Your task to perform on an android device: Show me the alarms in the clock app Image 0: 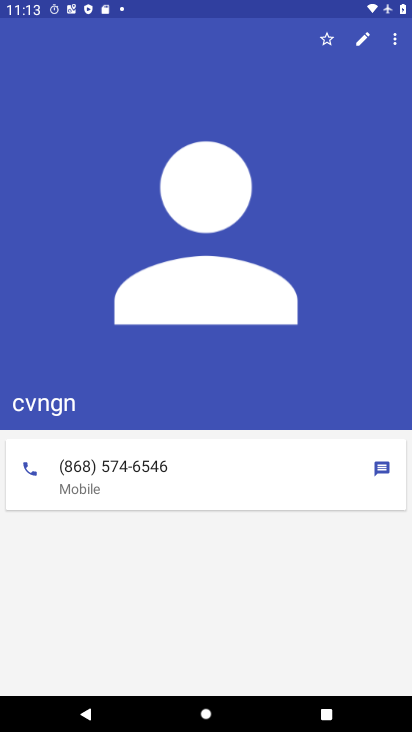
Step 0: press home button
Your task to perform on an android device: Show me the alarms in the clock app Image 1: 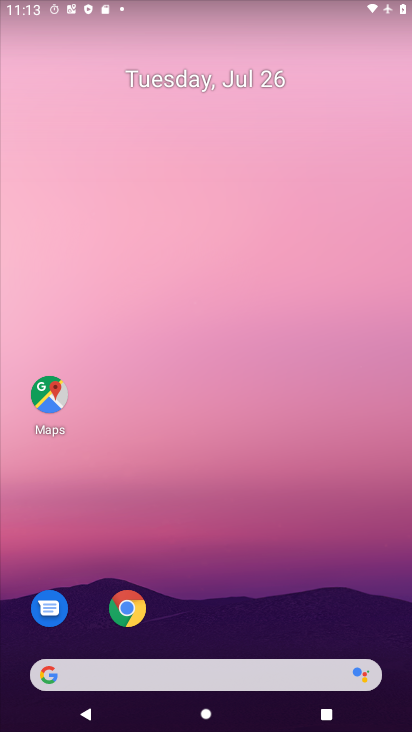
Step 1: drag from (207, 609) to (203, 197)
Your task to perform on an android device: Show me the alarms in the clock app Image 2: 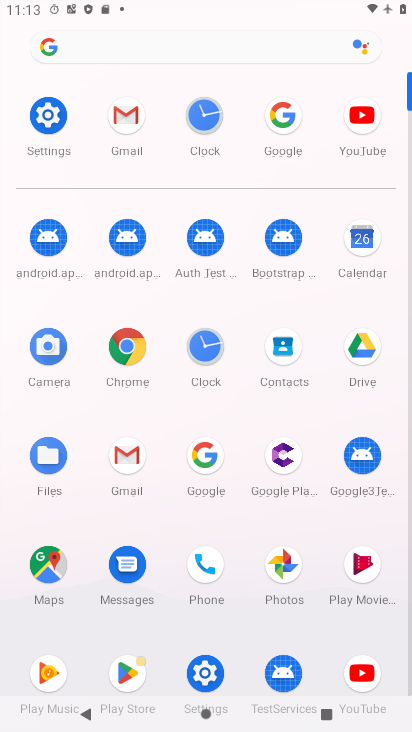
Step 2: click (195, 120)
Your task to perform on an android device: Show me the alarms in the clock app Image 3: 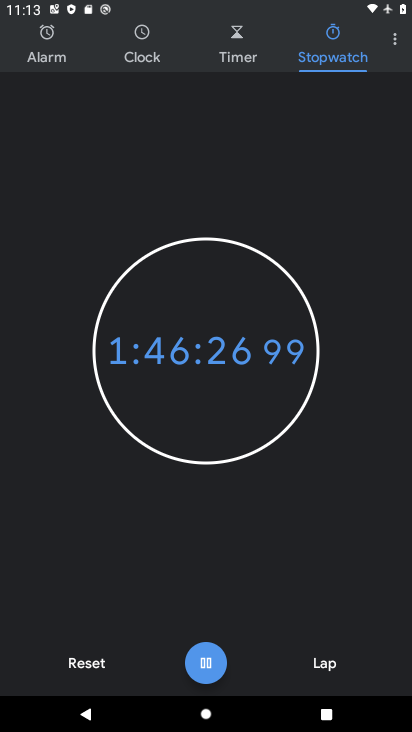
Step 3: click (34, 44)
Your task to perform on an android device: Show me the alarms in the clock app Image 4: 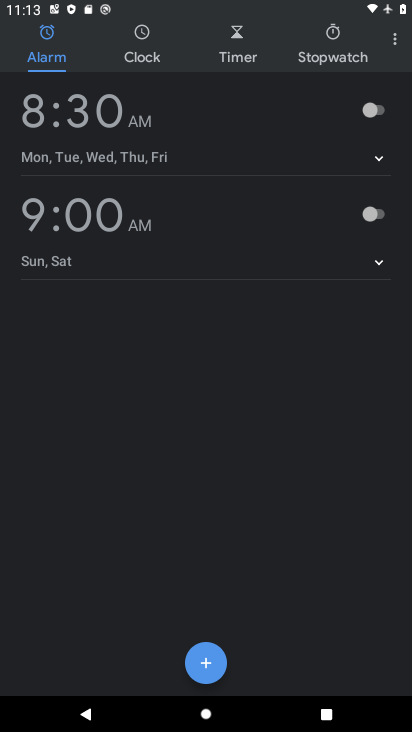
Step 4: task complete